Your task to perform on an android device: Open Google Maps Image 0: 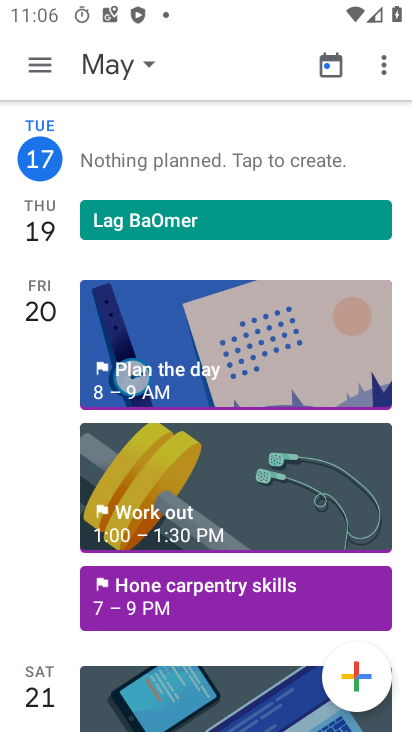
Step 0: press home button
Your task to perform on an android device: Open Google Maps Image 1: 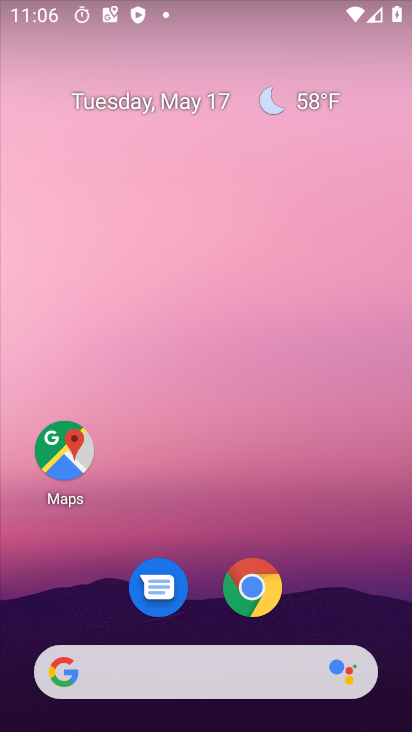
Step 1: click (63, 453)
Your task to perform on an android device: Open Google Maps Image 2: 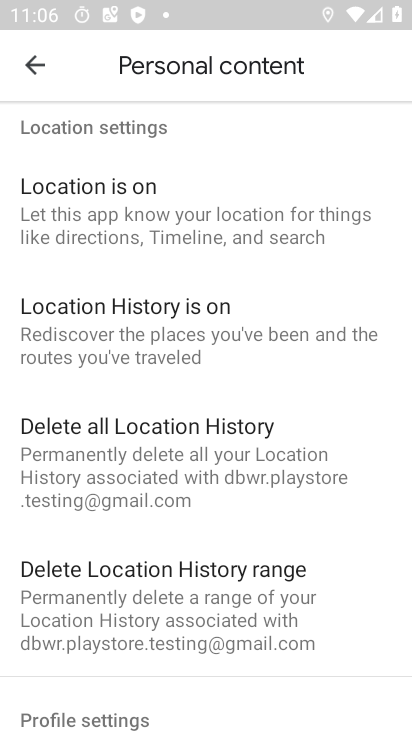
Step 2: task complete